Your task to perform on an android device: Open privacy settings Image 0: 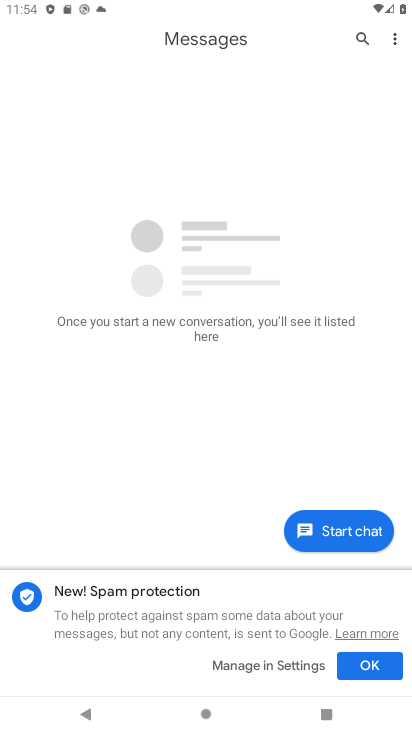
Step 0: press back button
Your task to perform on an android device: Open privacy settings Image 1: 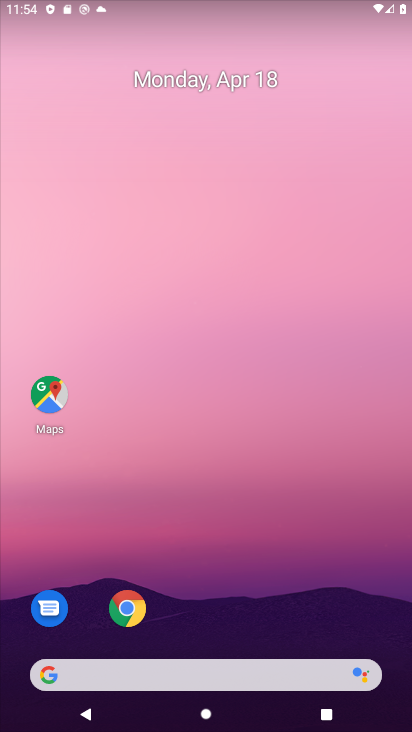
Step 1: drag from (226, 573) to (313, 115)
Your task to perform on an android device: Open privacy settings Image 2: 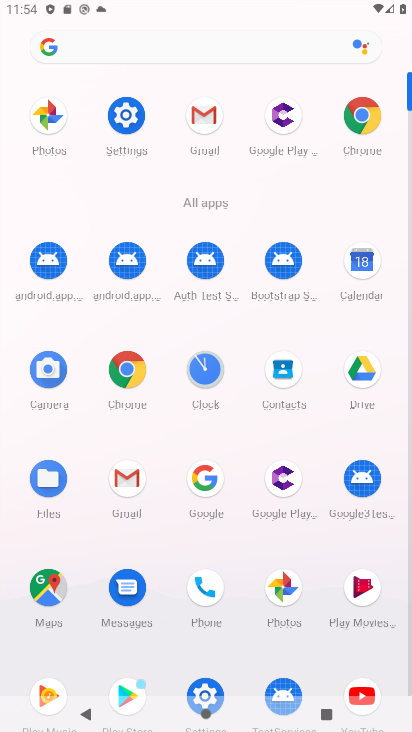
Step 2: click (137, 379)
Your task to perform on an android device: Open privacy settings Image 3: 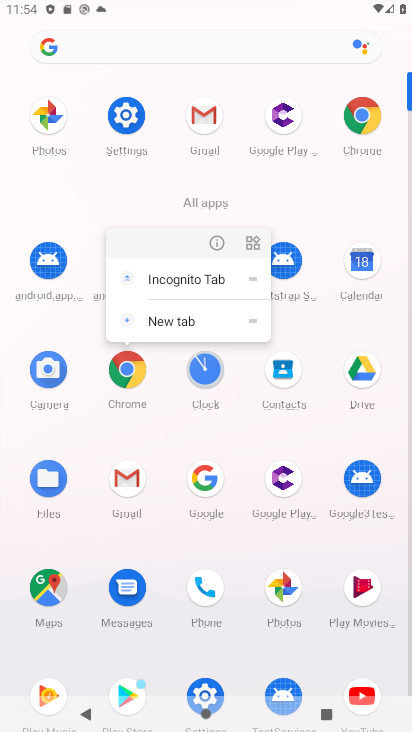
Step 3: click (127, 365)
Your task to perform on an android device: Open privacy settings Image 4: 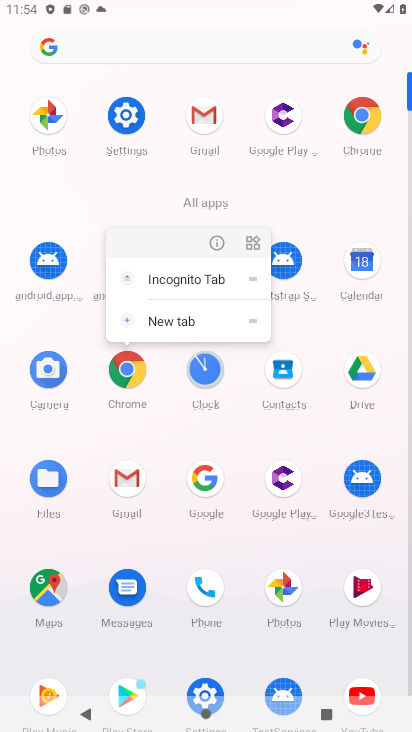
Step 4: click (127, 365)
Your task to perform on an android device: Open privacy settings Image 5: 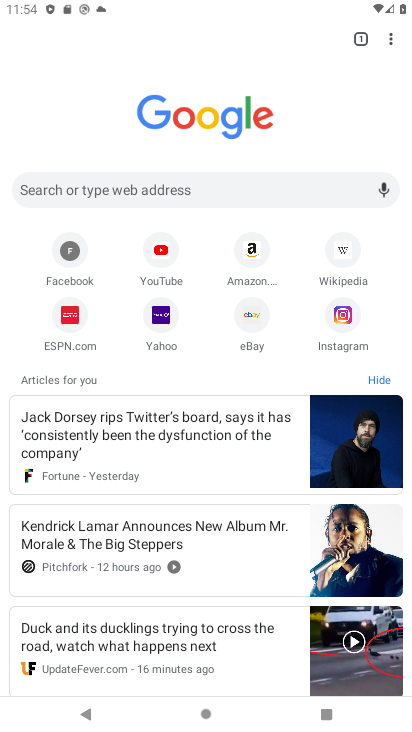
Step 5: click (391, 47)
Your task to perform on an android device: Open privacy settings Image 6: 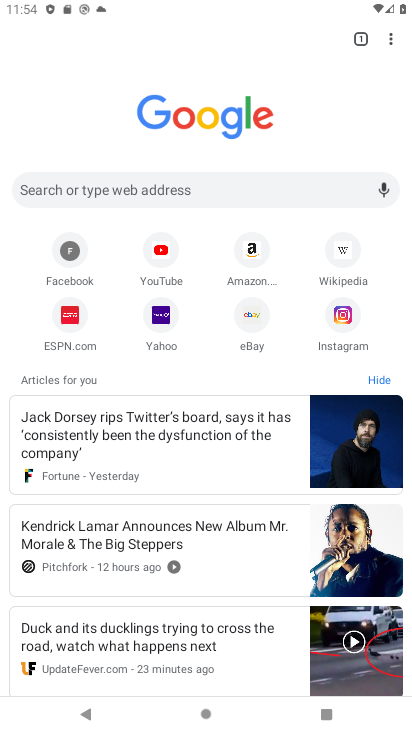
Step 6: click (393, 44)
Your task to perform on an android device: Open privacy settings Image 7: 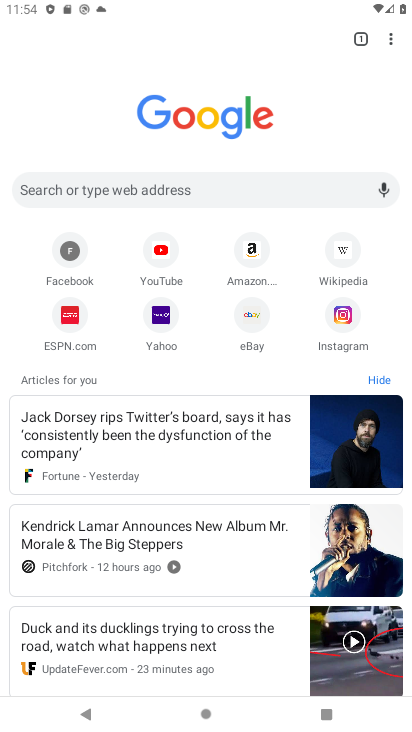
Step 7: drag from (393, 40) to (286, 325)
Your task to perform on an android device: Open privacy settings Image 8: 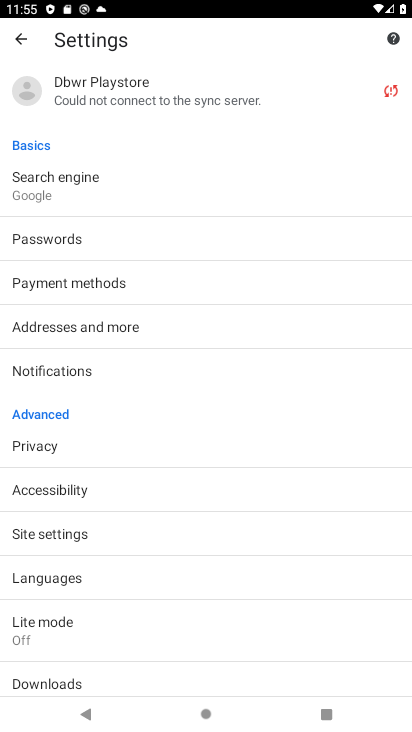
Step 8: click (69, 444)
Your task to perform on an android device: Open privacy settings Image 9: 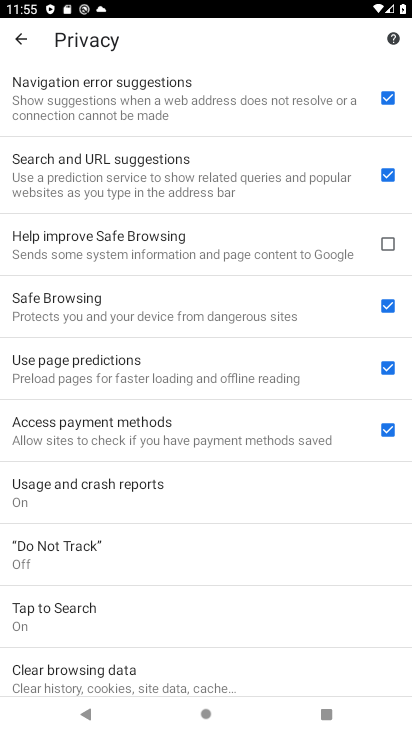
Step 9: task complete